Your task to perform on an android device: Go to Reddit.com Image 0: 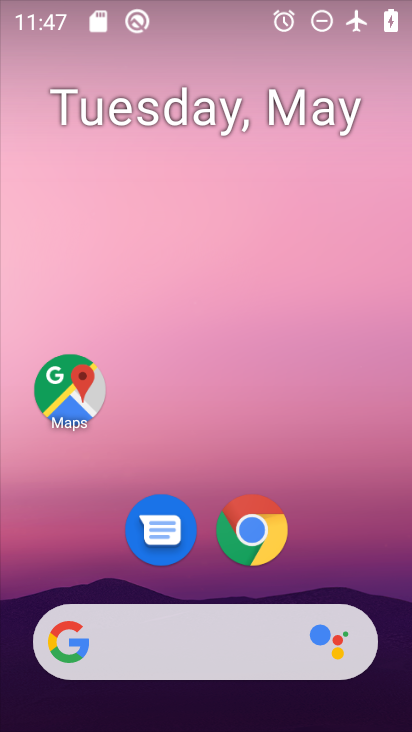
Step 0: click (254, 522)
Your task to perform on an android device: Go to Reddit.com Image 1: 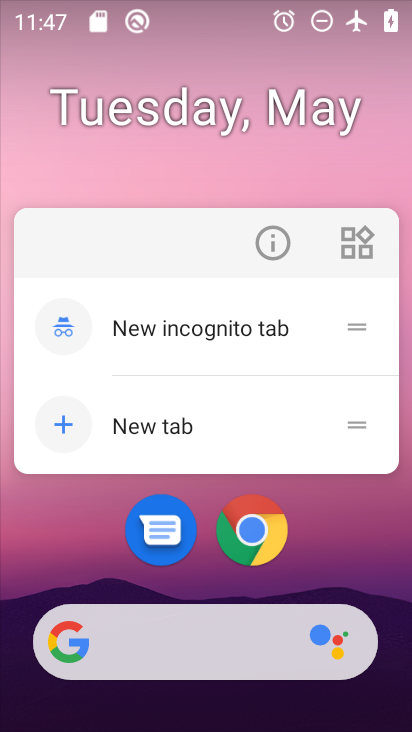
Step 1: click (314, 531)
Your task to perform on an android device: Go to Reddit.com Image 2: 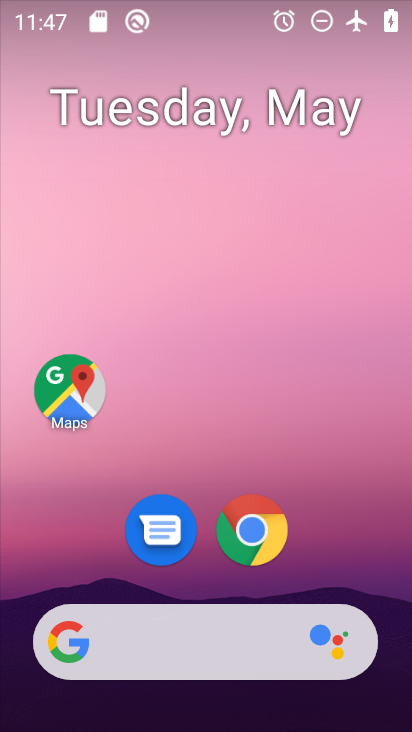
Step 2: drag from (314, 530) to (293, 41)
Your task to perform on an android device: Go to Reddit.com Image 3: 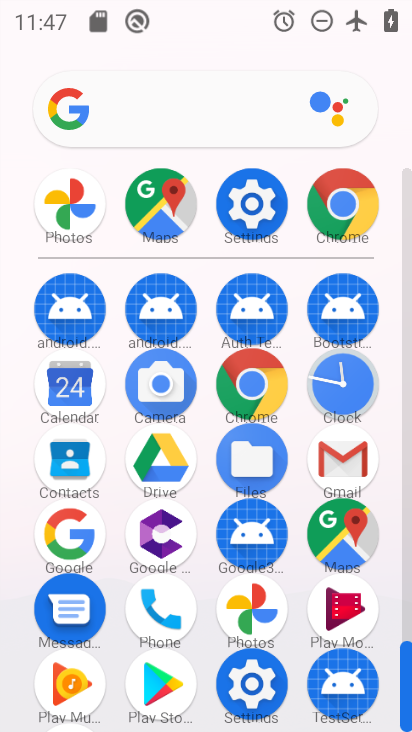
Step 3: click (347, 205)
Your task to perform on an android device: Go to Reddit.com Image 4: 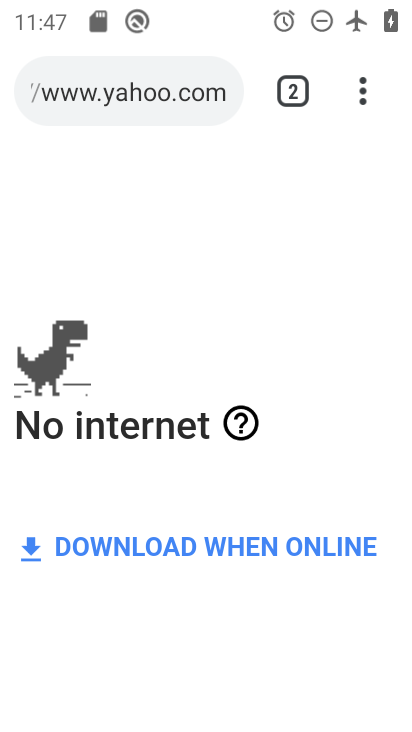
Step 4: click (133, 87)
Your task to perform on an android device: Go to Reddit.com Image 5: 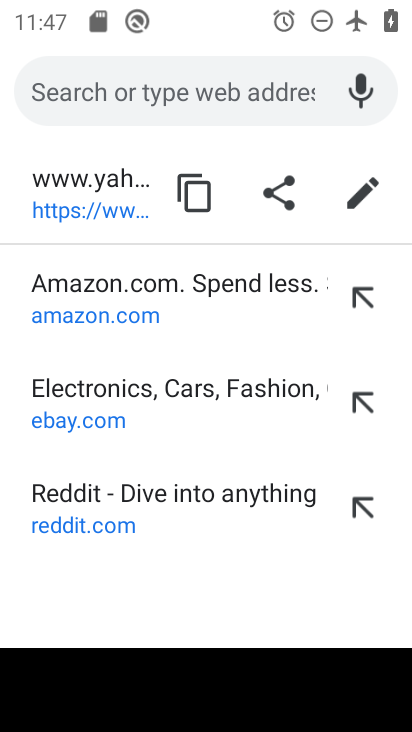
Step 5: click (79, 531)
Your task to perform on an android device: Go to Reddit.com Image 6: 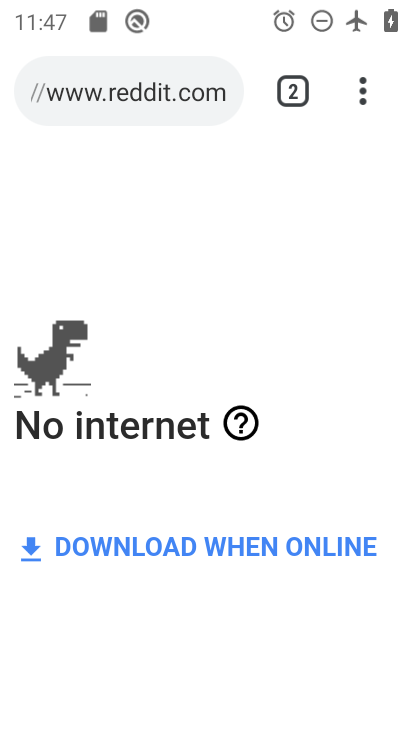
Step 6: task complete